Your task to perform on an android device: open chrome privacy settings Image 0: 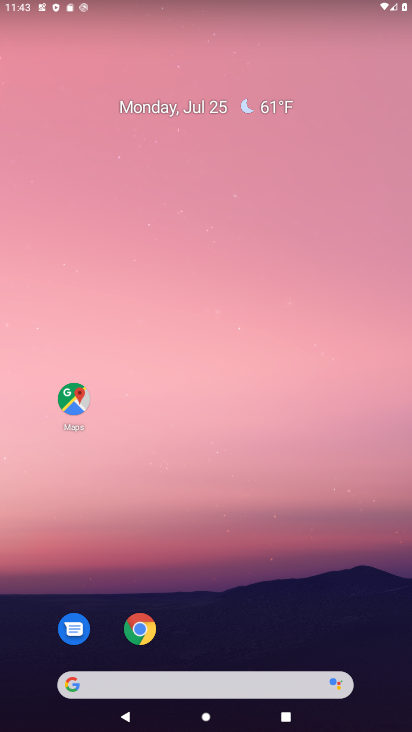
Step 0: click (128, 623)
Your task to perform on an android device: open chrome privacy settings Image 1: 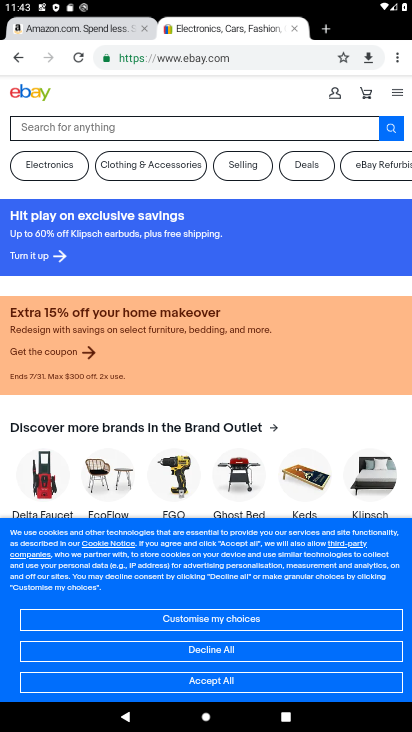
Step 1: click (393, 67)
Your task to perform on an android device: open chrome privacy settings Image 2: 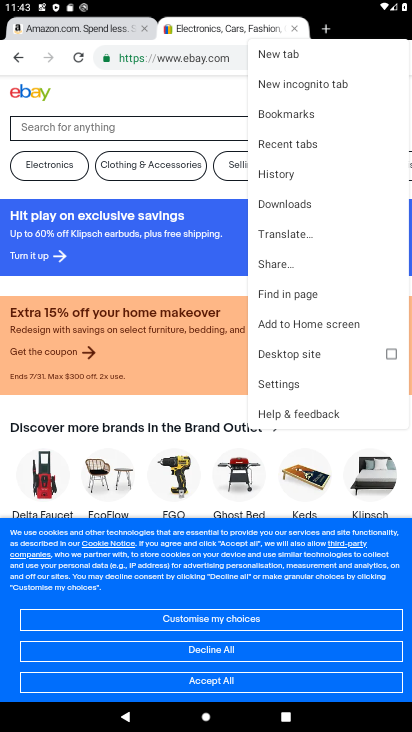
Step 2: click (310, 378)
Your task to perform on an android device: open chrome privacy settings Image 3: 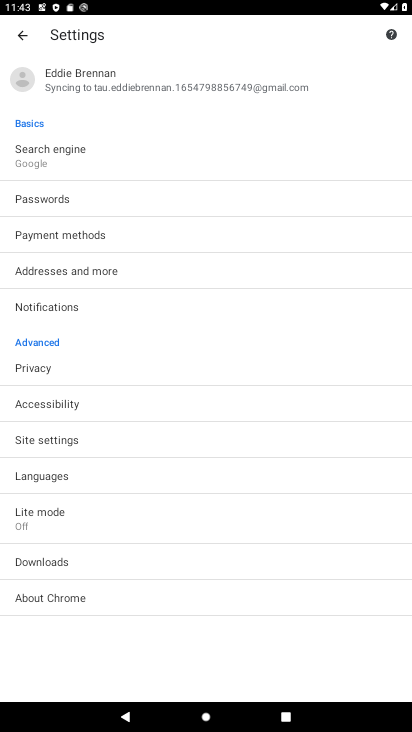
Step 3: click (62, 374)
Your task to perform on an android device: open chrome privacy settings Image 4: 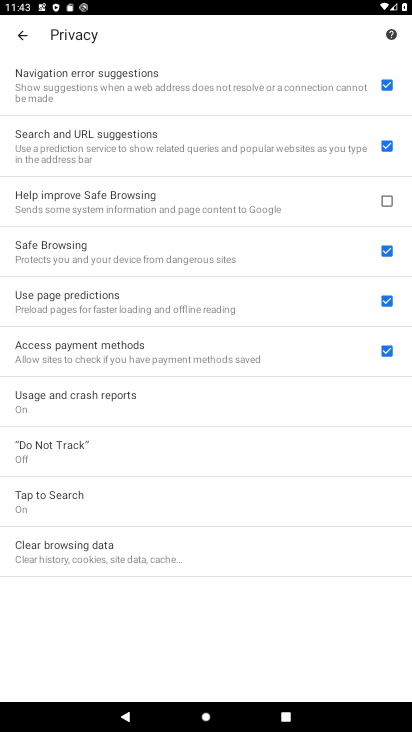
Step 4: task complete